Your task to perform on an android device: Open notification settings Image 0: 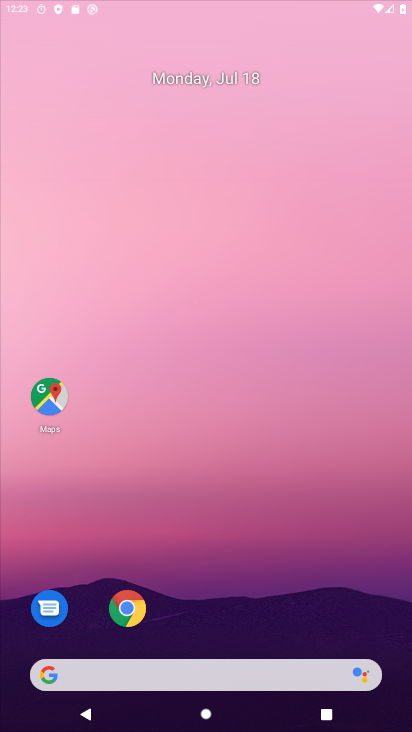
Step 0: press home button
Your task to perform on an android device: Open notification settings Image 1: 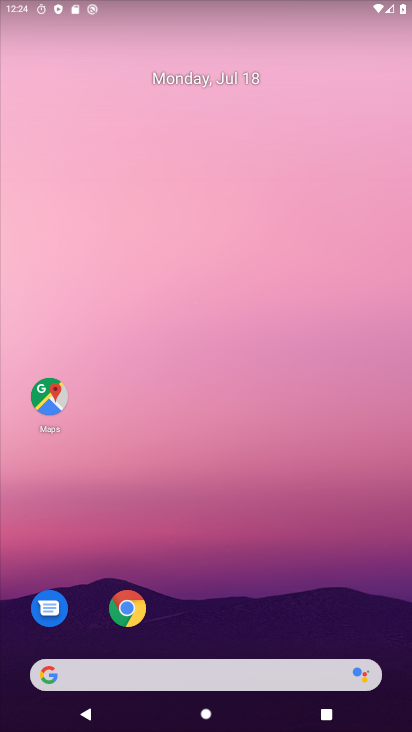
Step 1: drag from (215, 513) to (364, 242)
Your task to perform on an android device: Open notification settings Image 2: 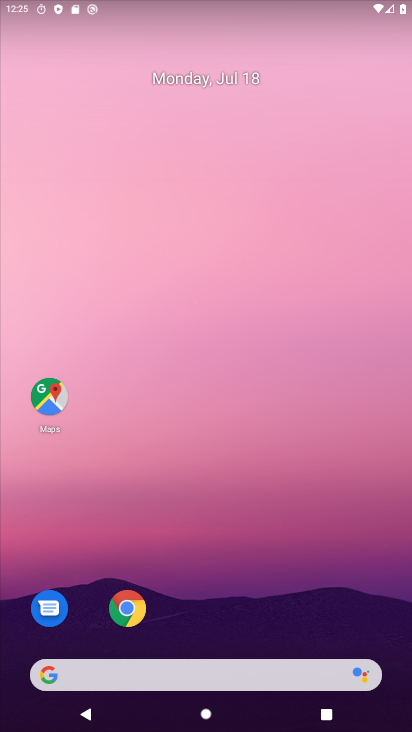
Step 2: drag from (285, 407) to (279, 29)
Your task to perform on an android device: Open notification settings Image 3: 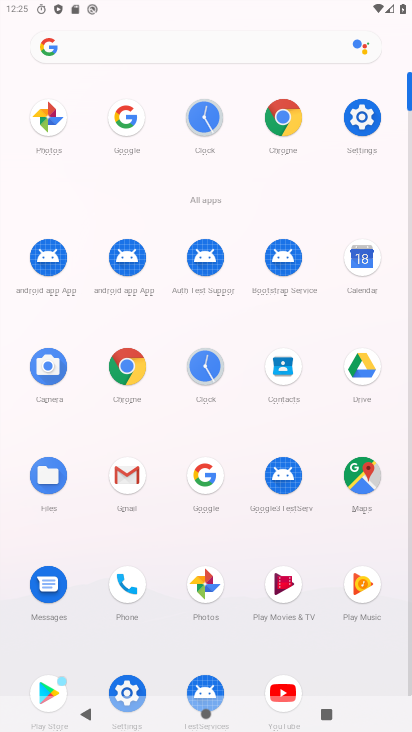
Step 3: click (358, 110)
Your task to perform on an android device: Open notification settings Image 4: 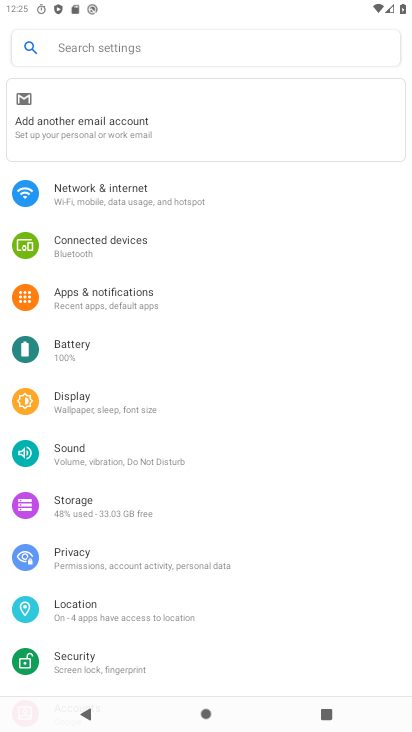
Step 4: click (101, 310)
Your task to perform on an android device: Open notification settings Image 5: 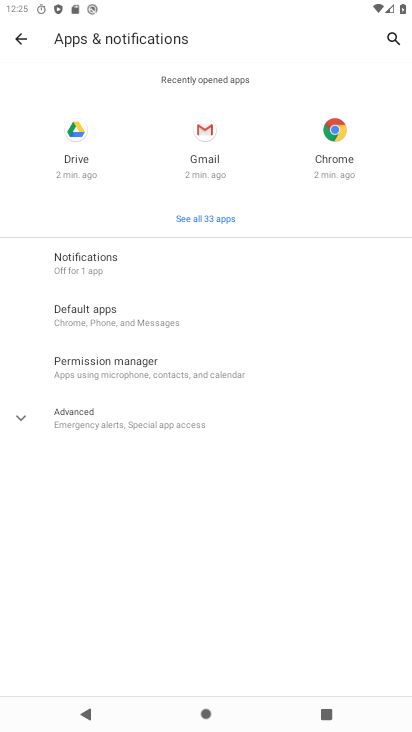
Step 5: click (67, 264)
Your task to perform on an android device: Open notification settings Image 6: 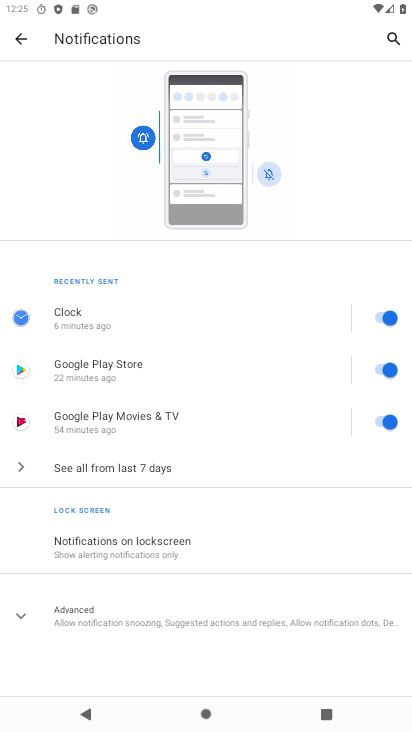
Step 6: click (114, 612)
Your task to perform on an android device: Open notification settings Image 7: 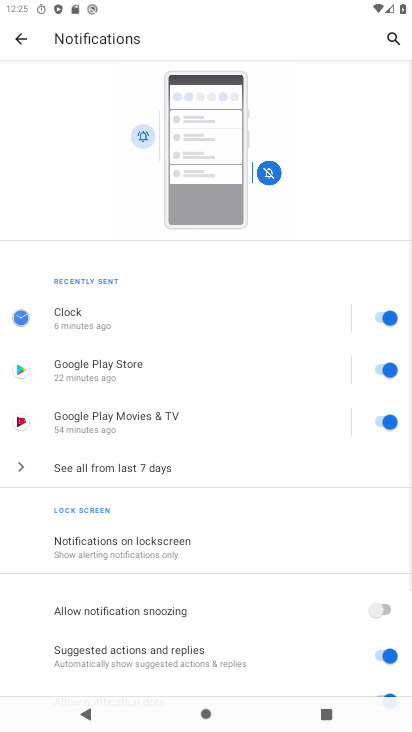
Step 7: task complete